Your task to perform on an android device: turn on wifi Image 0: 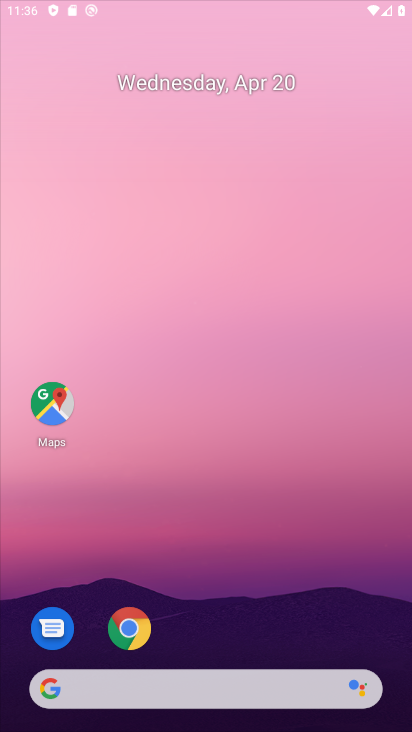
Step 0: click (291, 59)
Your task to perform on an android device: turn on wifi Image 1: 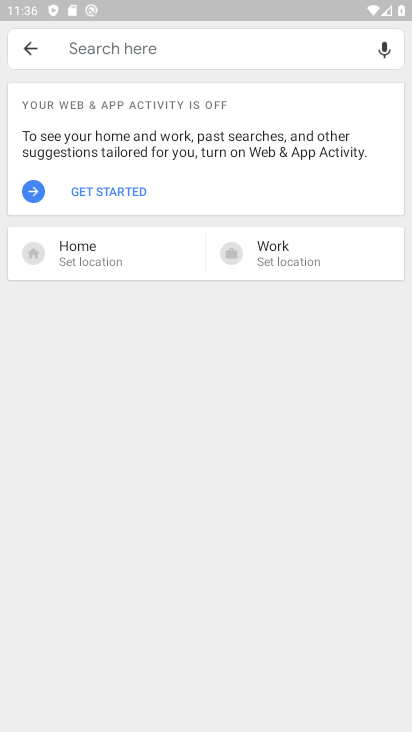
Step 1: press back button
Your task to perform on an android device: turn on wifi Image 2: 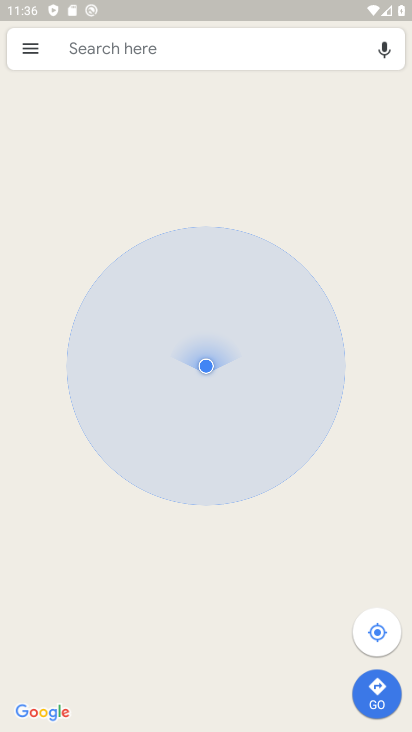
Step 2: press back button
Your task to perform on an android device: turn on wifi Image 3: 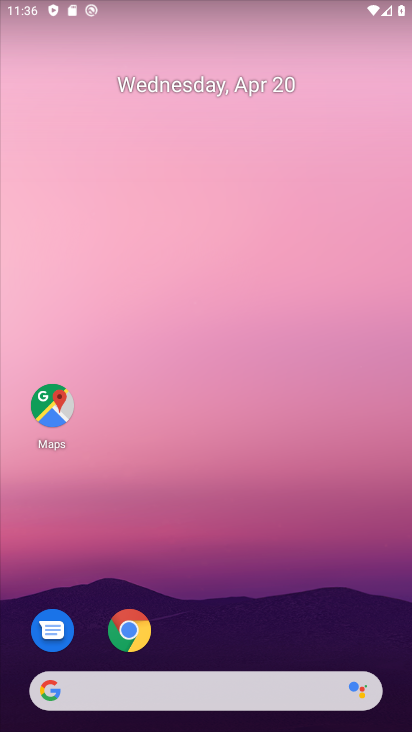
Step 3: drag from (226, 562) to (259, 109)
Your task to perform on an android device: turn on wifi Image 4: 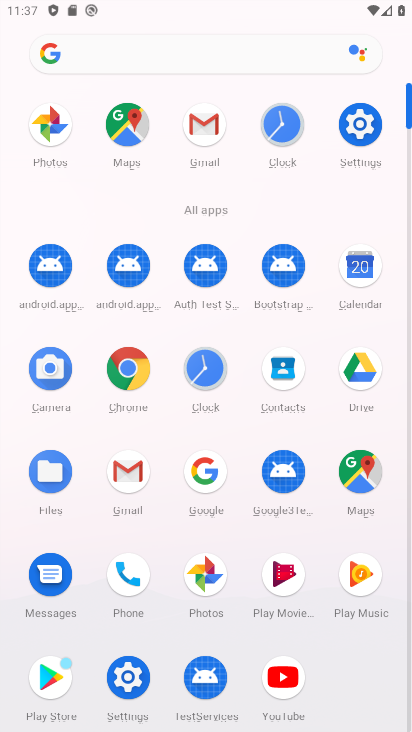
Step 4: click (135, 670)
Your task to perform on an android device: turn on wifi Image 5: 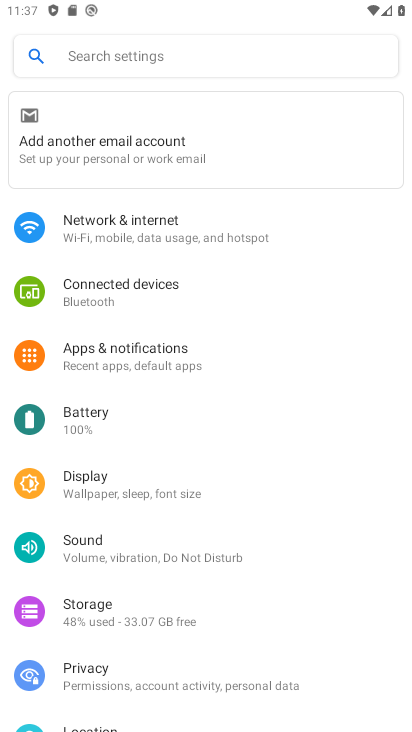
Step 5: click (159, 236)
Your task to perform on an android device: turn on wifi Image 6: 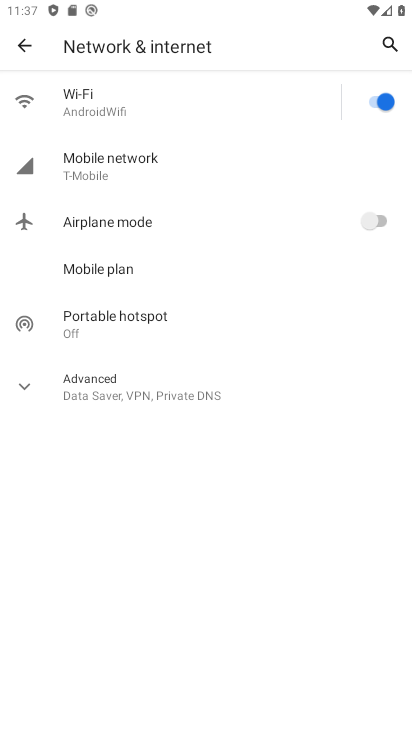
Step 6: task complete